Your task to perform on an android device: see sites visited before in the chrome app Image 0: 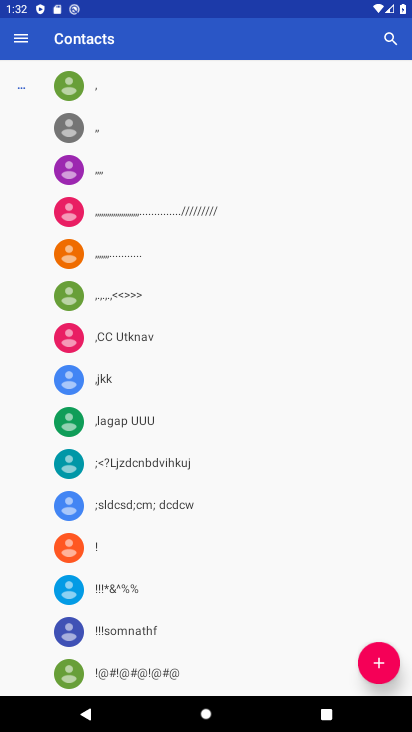
Step 0: press home button
Your task to perform on an android device: see sites visited before in the chrome app Image 1: 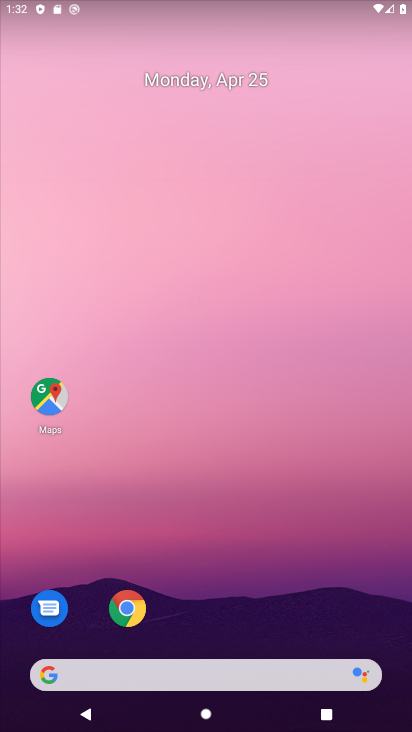
Step 1: drag from (347, 593) to (384, 130)
Your task to perform on an android device: see sites visited before in the chrome app Image 2: 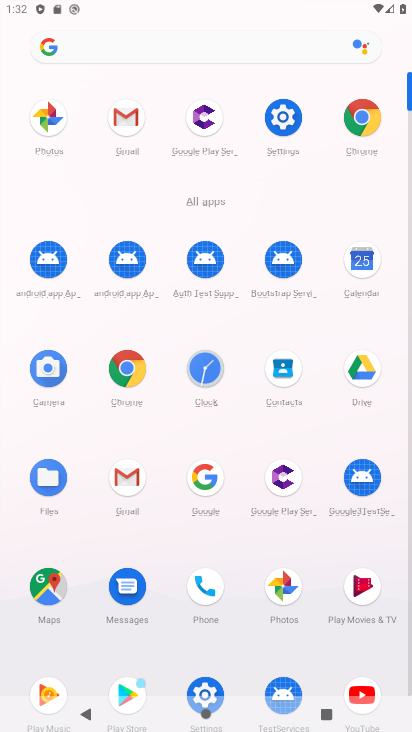
Step 2: click (128, 375)
Your task to perform on an android device: see sites visited before in the chrome app Image 3: 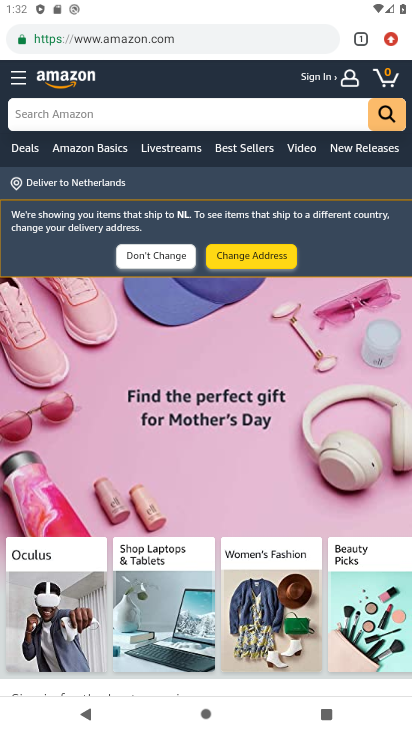
Step 3: click (392, 38)
Your task to perform on an android device: see sites visited before in the chrome app Image 4: 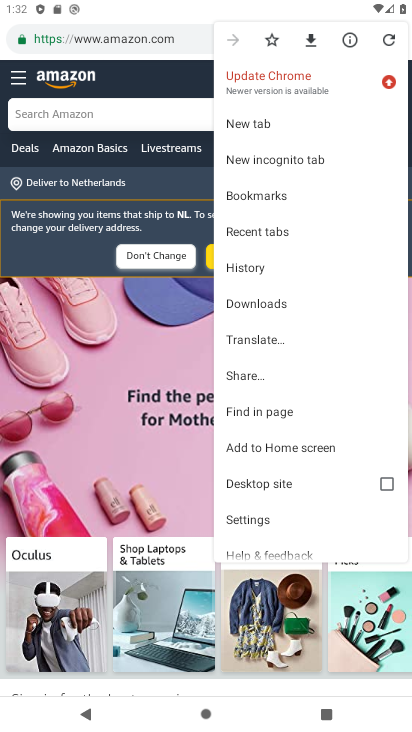
Step 4: click (265, 271)
Your task to perform on an android device: see sites visited before in the chrome app Image 5: 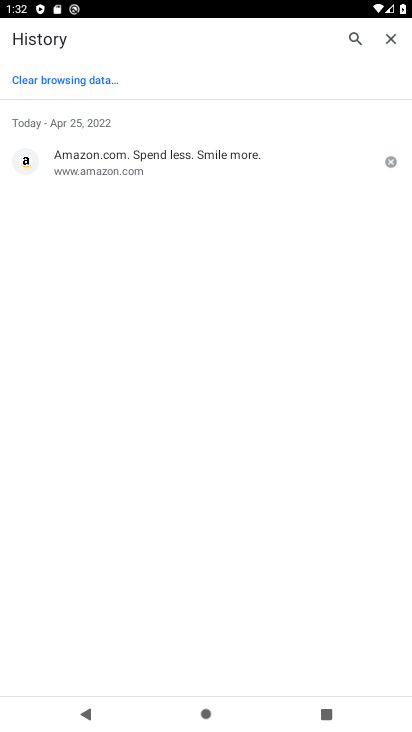
Step 5: task complete